Your task to perform on an android device: turn on the 24-hour format for clock Image 0: 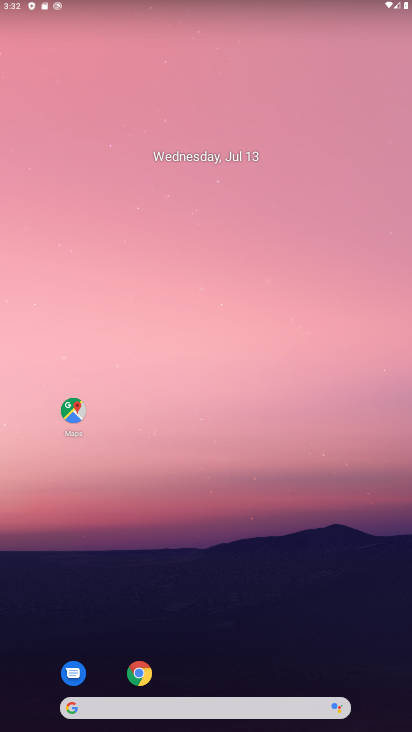
Step 0: drag from (205, 640) to (223, 4)
Your task to perform on an android device: turn on the 24-hour format for clock Image 1: 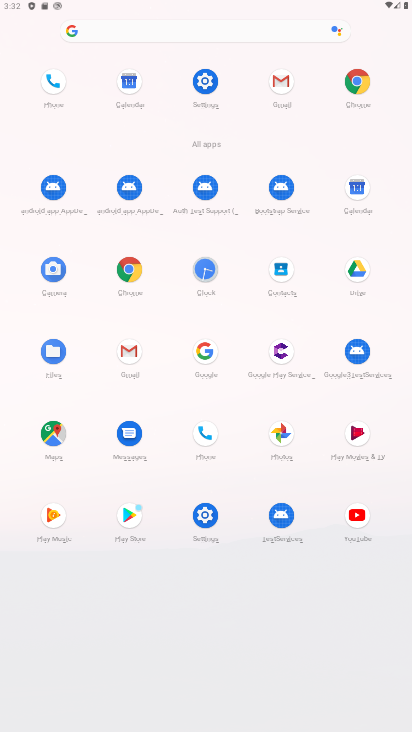
Step 1: click (208, 509)
Your task to perform on an android device: turn on the 24-hour format for clock Image 2: 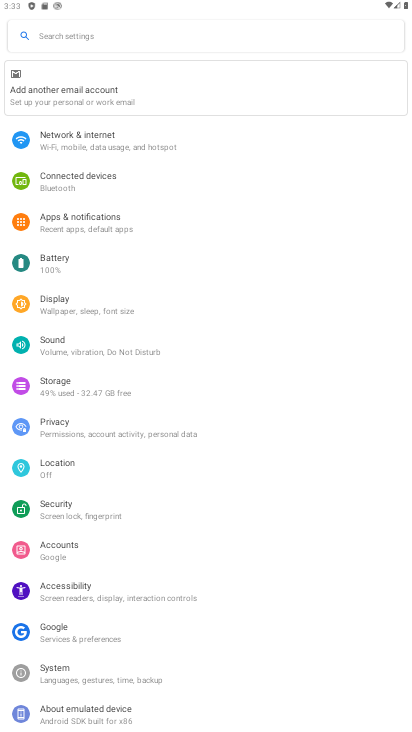
Step 2: press home button
Your task to perform on an android device: turn on the 24-hour format for clock Image 3: 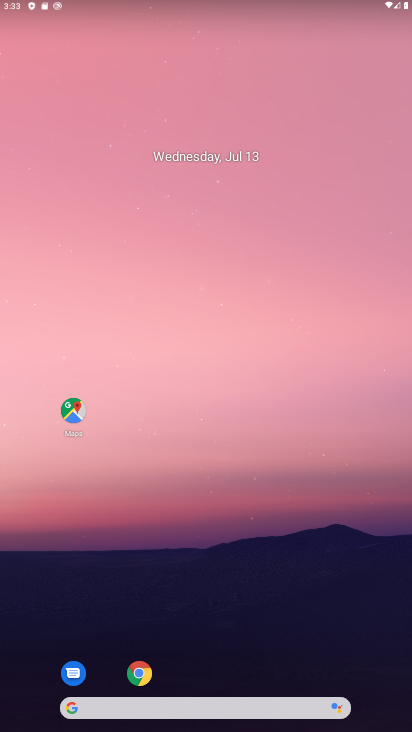
Step 3: drag from (244, 582) to (252, 125)
Your task to perform on an android device: turn on the 24-hour format for clock Image 4: 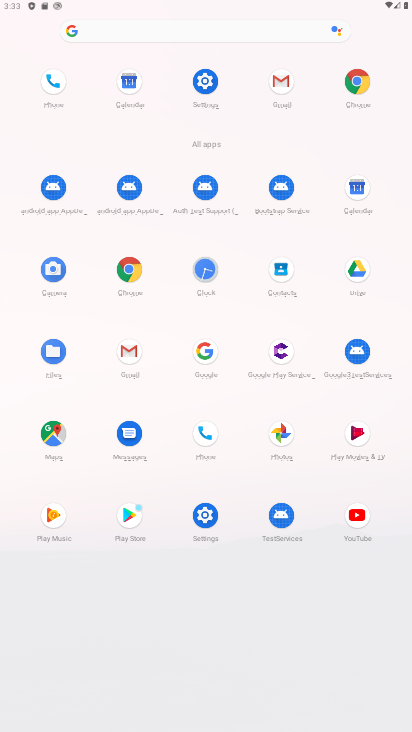
Step 4: click (210, 276)
Your task to perform on an android device: turn on the 24-hour format for clock Image 5: 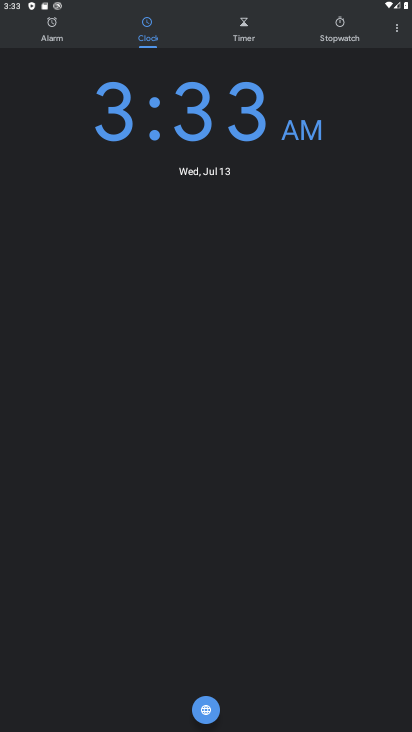
Step 5: click (398, 29)
Your task to perform on an android device: turn on the 24-hour format for clock Image 6: 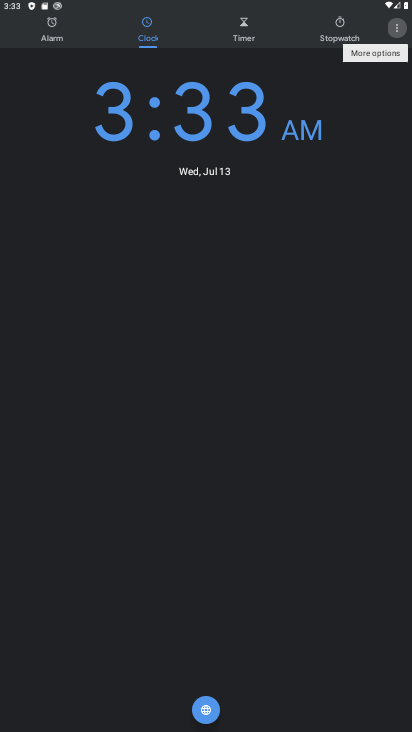
Step 6: click (398, 29)
Your task to perform on an android device: turn on the 24-hour format for clock Image 7: 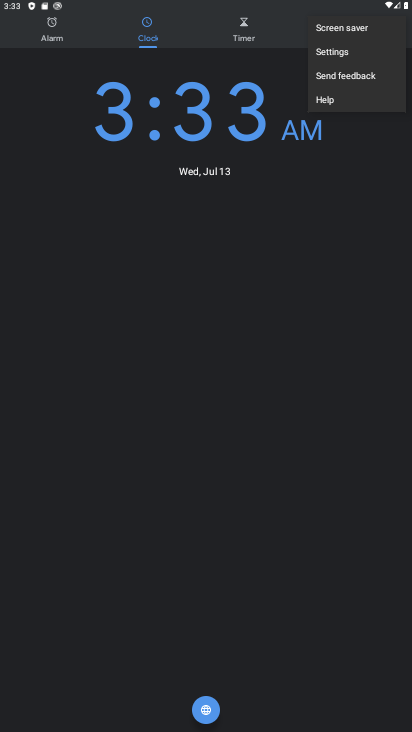
Step 7: click (322, 59)
Your task to perform on an android device: turn on the 24-hour format for clock Image 8: 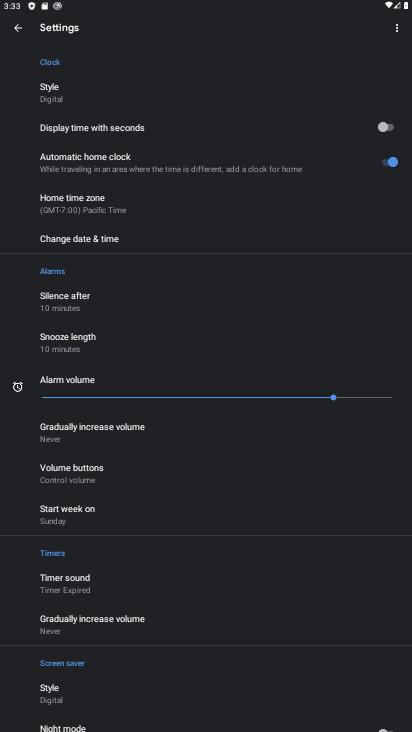
Step 8: click (91, 242)
Your task to perform on an android device: turn on the 24-hour format for clock Image 9: 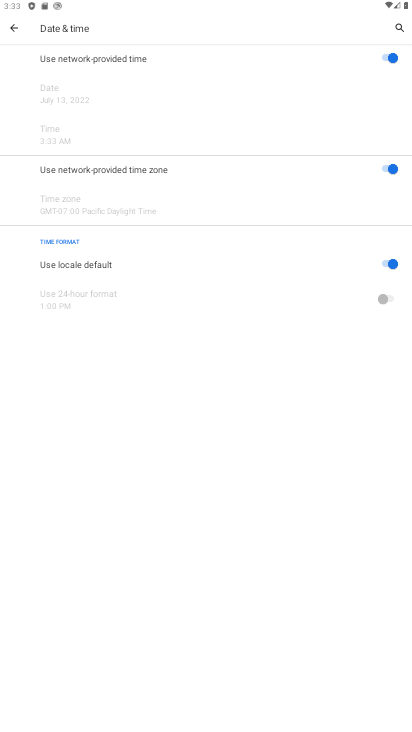
Step 9: click (383, 262)
Your task to perform on an android device: turn on the 24-hour format for clock Image 10: 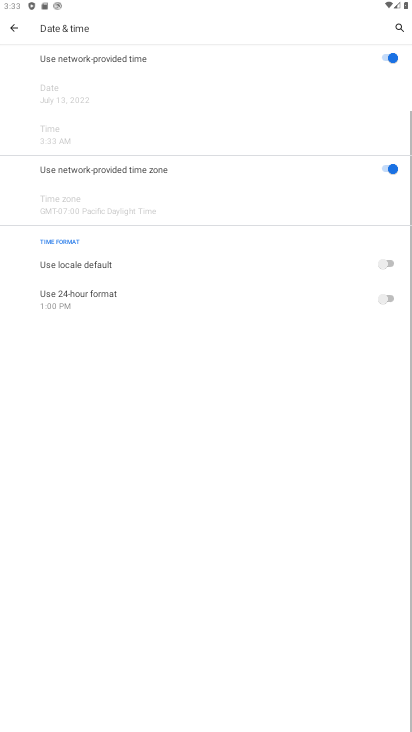
Step 10: click (390, 298)
Your task to perform on an android device: turn on the 24-hour format for clock Image 11: 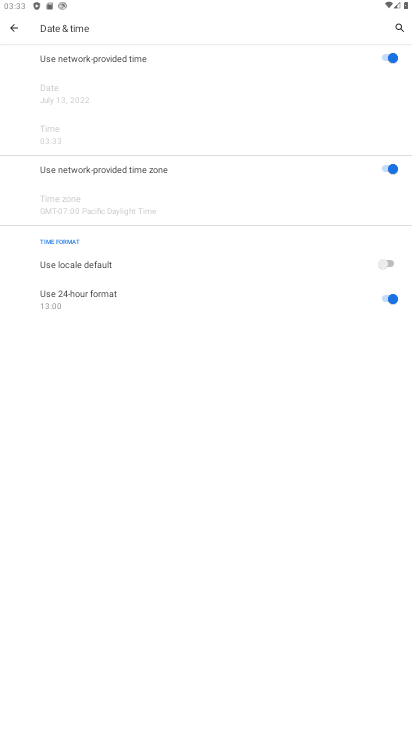
Step 11: task complete